Your task to perform on an android device: What's the latest video from GameSpot Reviews? Image 0: 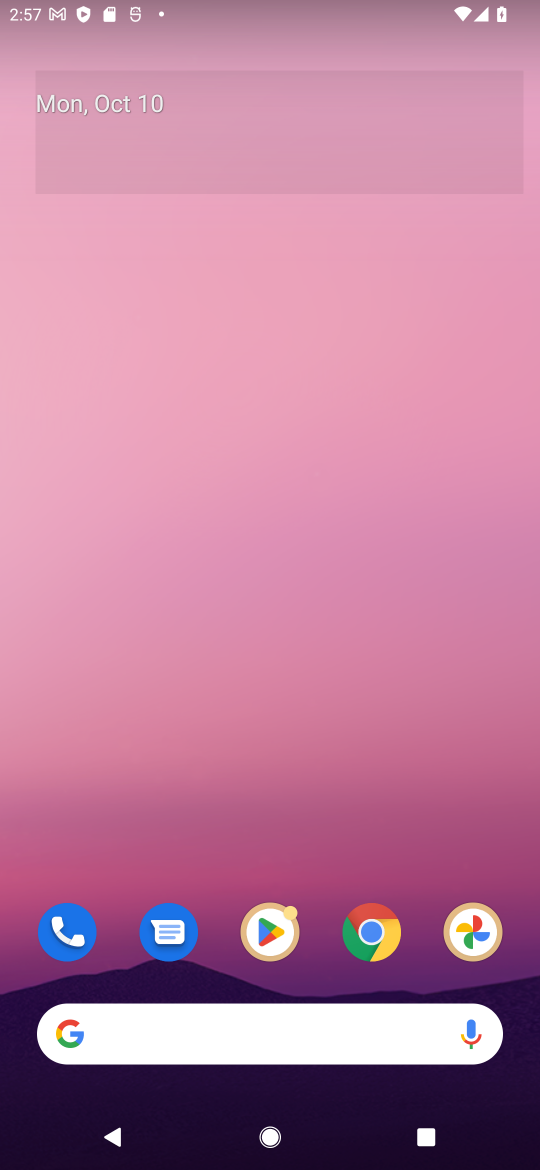
Step 0: press home button
Your task to perform on an android device: What's the latest video from GameSpot Reviews? Image 1: 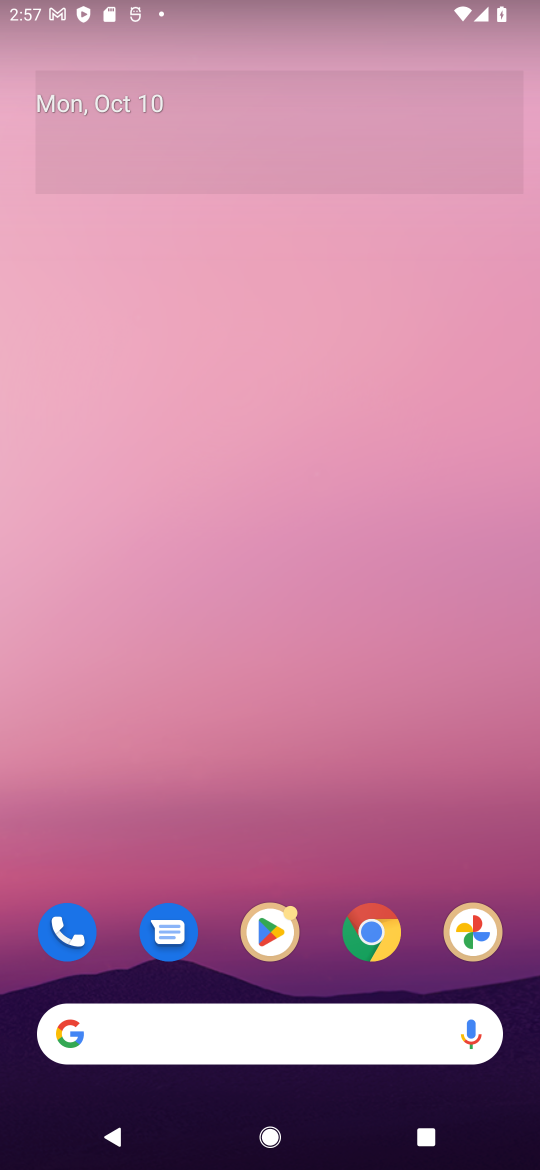
Step 1: click (295, 1030)
Your task to perform on an android device: What's the latest video from GameSpot Reviews? Image 2: 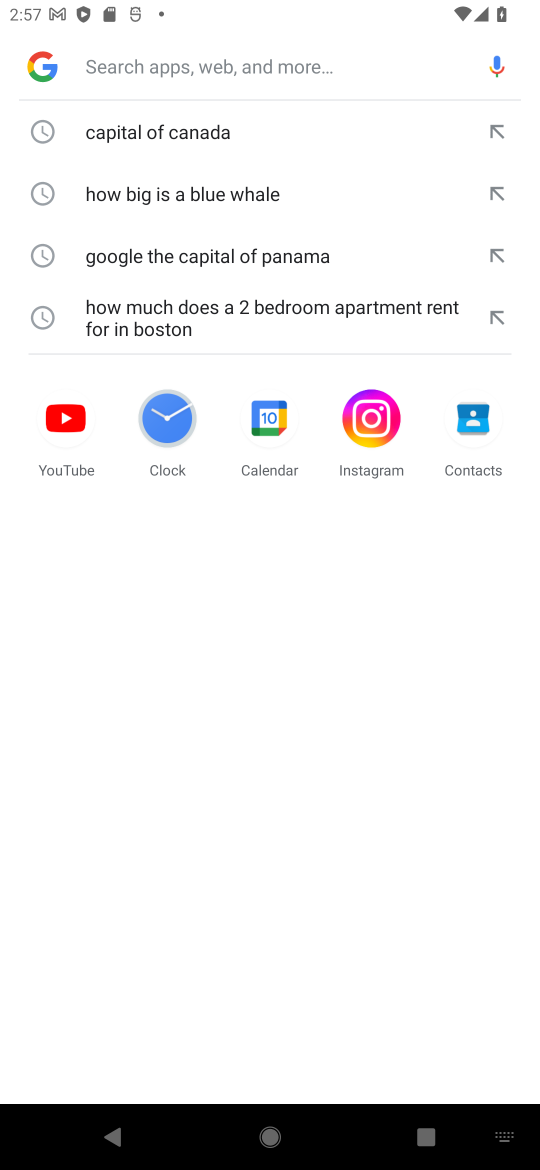
Step 2: type "What's the latest video from GameSpot Reviews"
Your task to perform on an android device: What's the latest video from GameSpot Reviews? Image 3: 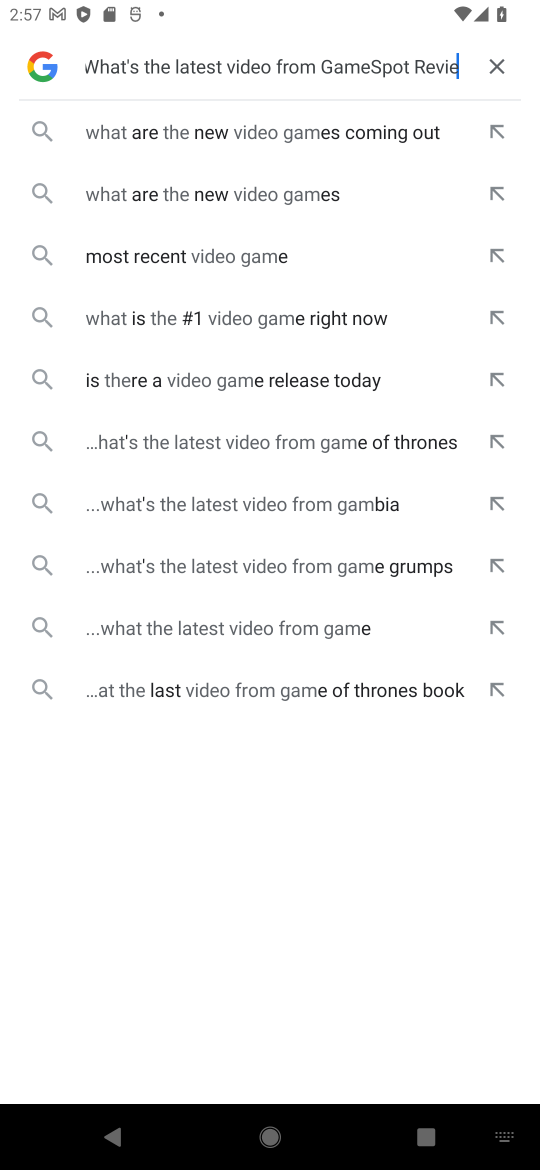
Step 3: press enter
Your task to perform on an android device: What's the latest video from GameSpot Reviews? Image 4: 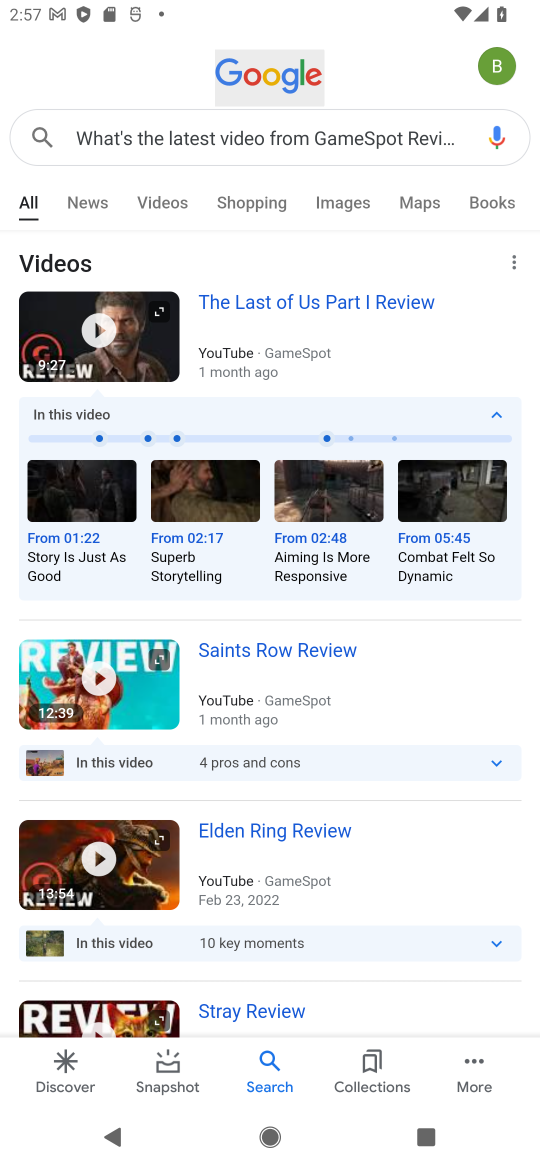
Step 4: drag from (312, 799) to (297, 521)
Your task to perform on an android device: What's the latest video from GameSpot Reviews? Image 5: 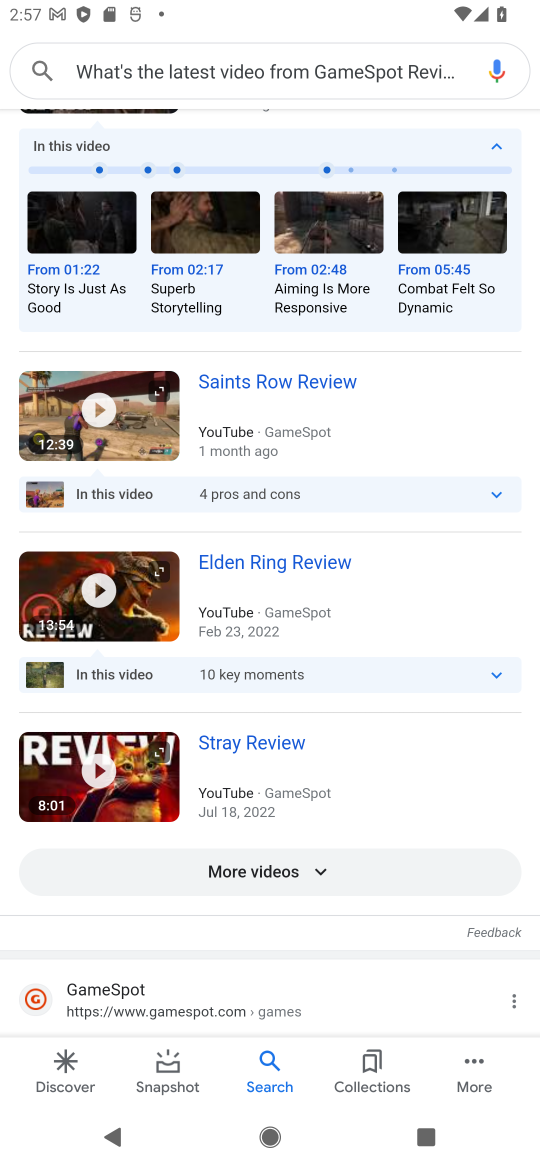
Step 5: drag from (307, 969) to (294, 540)
Your task to perform on an android device: What's the latest video from GameSpot Reviews? Image 6: 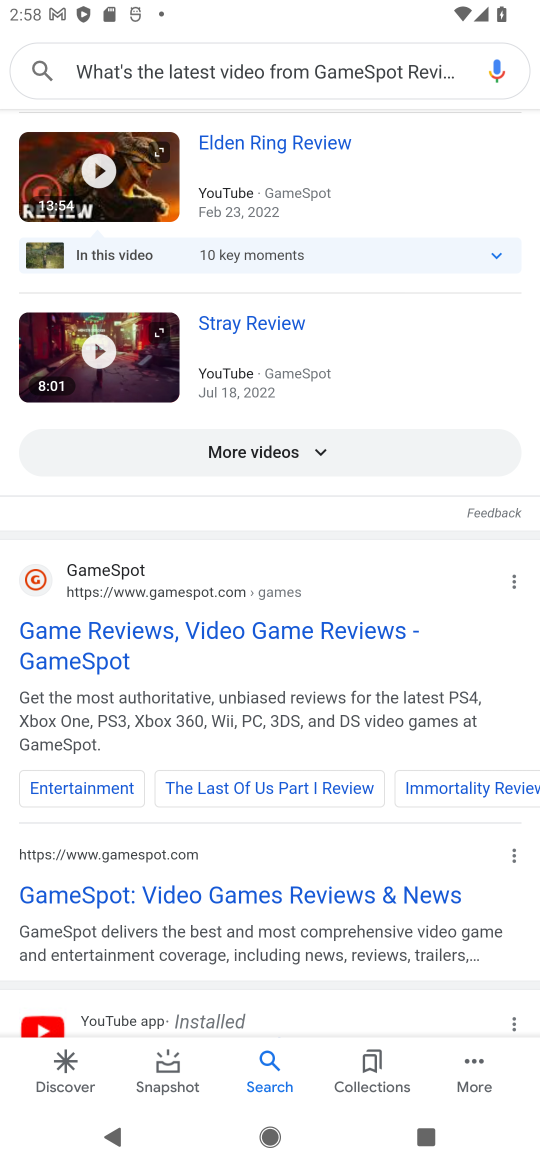
Step 6: drag from (260, 970) to (275, 553)
Your task to perform on an android device: What's the latest video from GameSpot Reviews? Image 7: 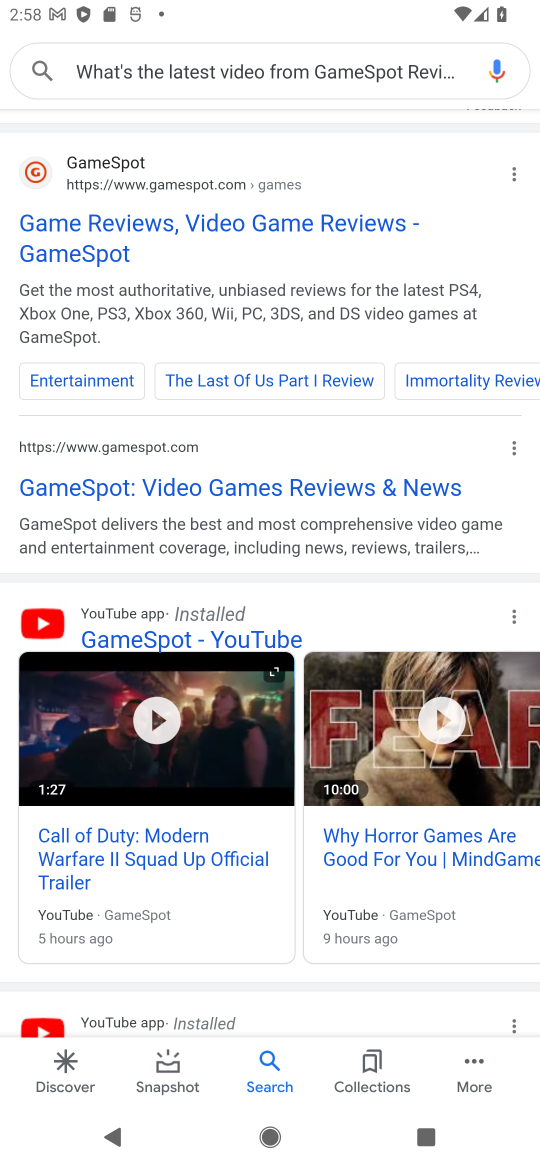
Step 7: click (287, 496)
Your task to perform on an android device: What's the latest video from GameSpot Reviews? Image 8: 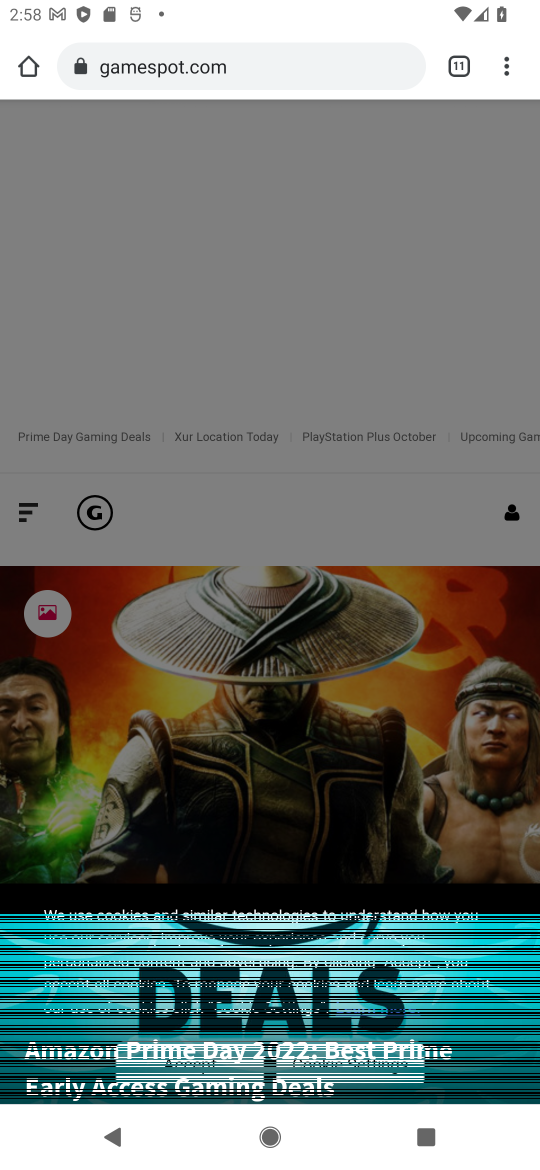
Step 8: task complete